Your task to perform on an android device: Go to privacy settings Image 0: 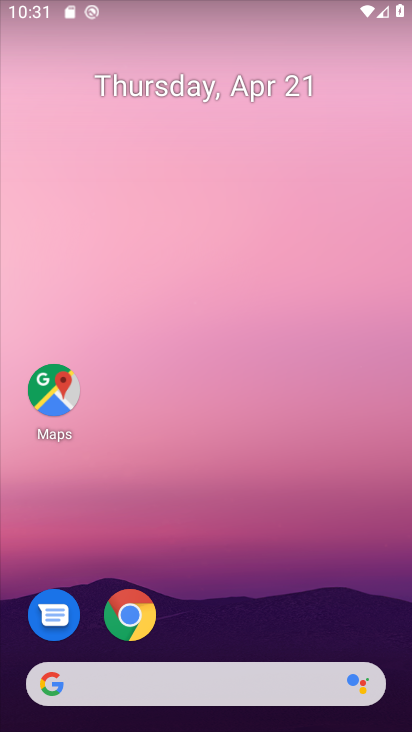
Step 0: click (140, 623)
Your task to perform on an android device: Go to privacy settings Image 1: 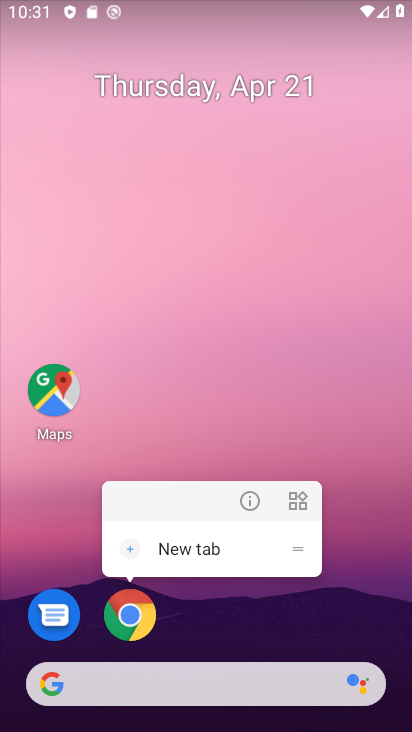
Step 1: click (140, 622)
Your task to perform on an android device: Go to privacy settings Image 2: 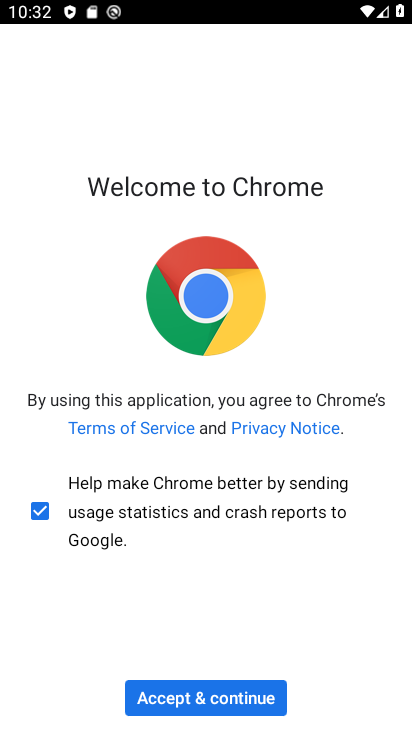
Step 2: click (185, 692)
Your task to perform on an android device: Go to privacy settings Image 3: 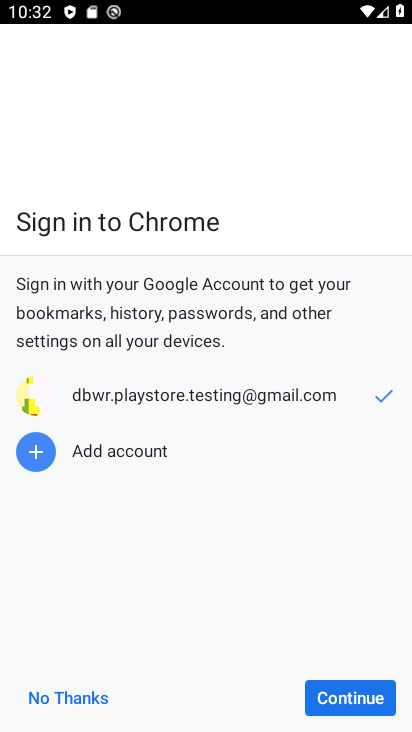
Step 3: click (376, 698)
Your task to perform on an android device: Go to privacy settings Image 4: 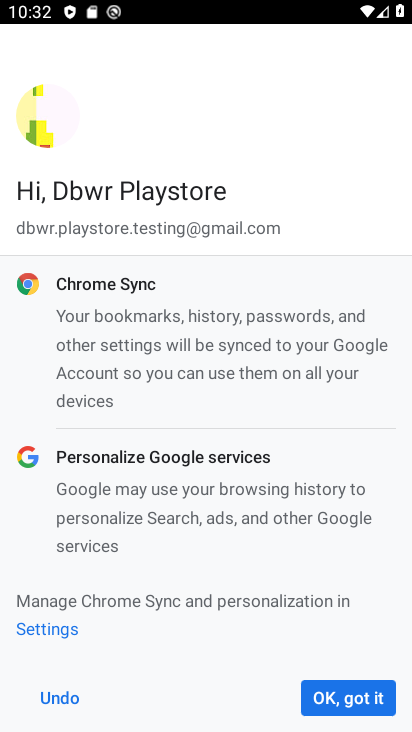
Step 4: click (376, 698)
Your task to perform on an android device: Go to privacy settings Image 5: 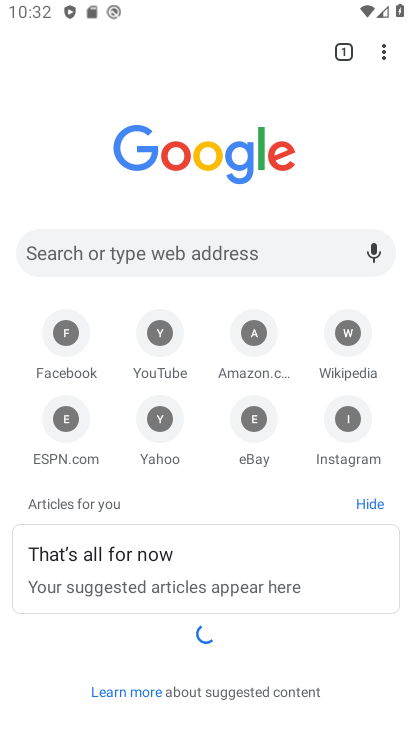
Step 5: drag from (387, 66) to (323, 440)
Your task to perform on an android device: Go to privacy settings Image 6: 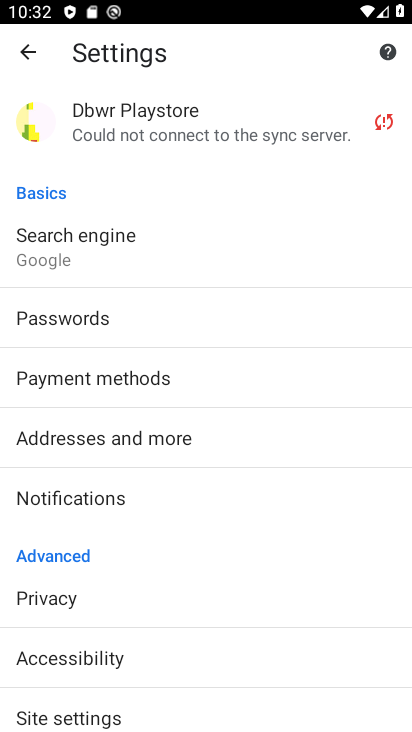
Step 6: click (272, 603)
Your task to perform on an android device: Go to privacy settings Image 7: 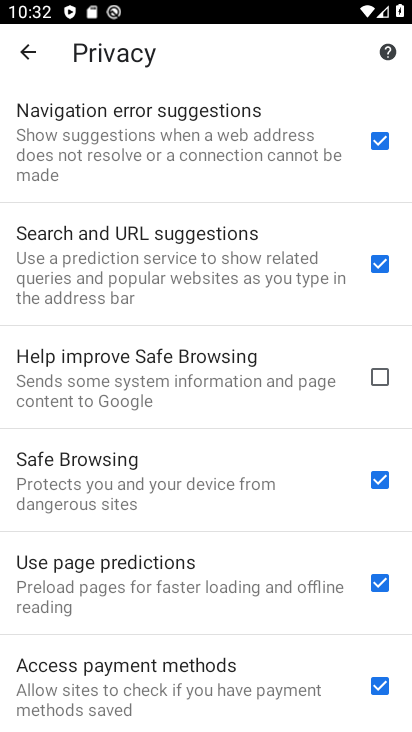
Step 7: task complete